Your task to perform on an android device: see sites visited before in the chrome app Image 0: 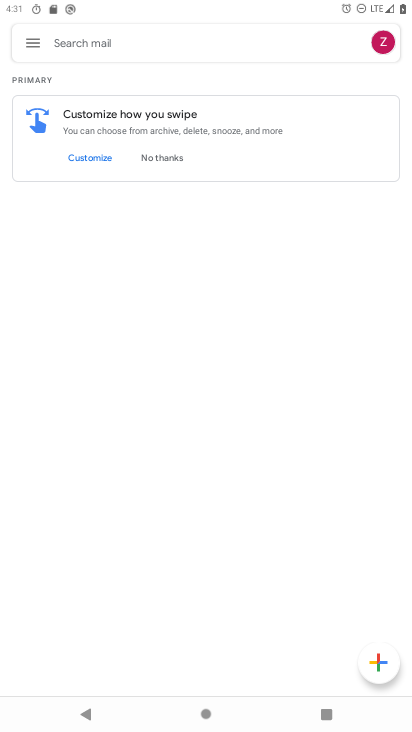
Step 0: press home button
Your task to perform on an android device: see sites visited before in the chrome app Image 1: 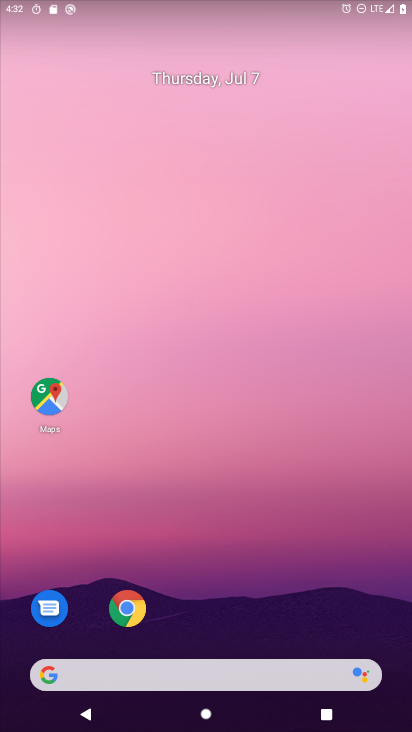
Step 1: click (127, 609)
Your task to perform on an android device: see sites visited before in the chrome app Image 2: 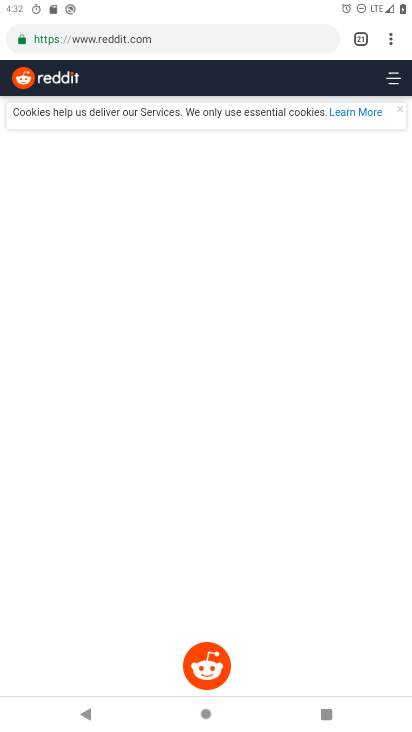
Step 2: click (390, 44)
Your task to perform on an android device: see sites visited before in the chrome app Image 3: 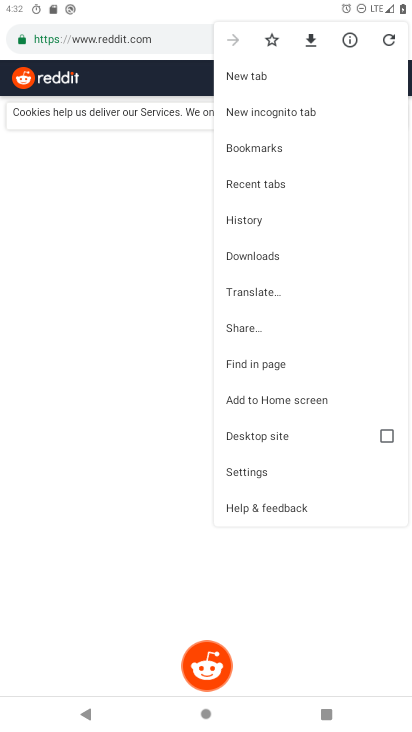
Step 3: click (241, 215)
Your task to perform on an android device: see sites visited before in the chrome app Image 4: 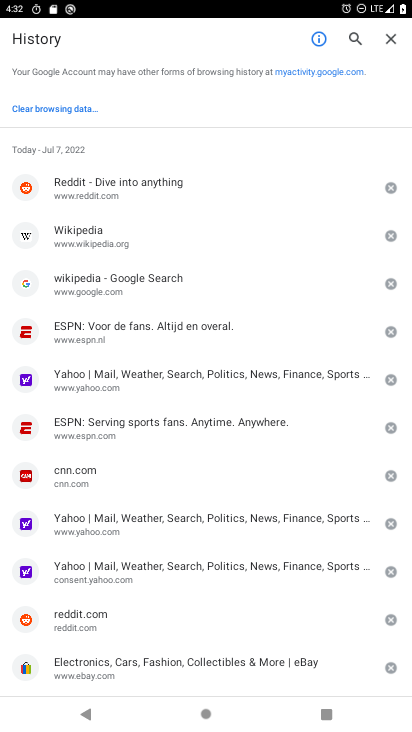
Step 4: task complete